Your task to perform on an android device: Open Google Maps and go to "Timeline" Image 0: 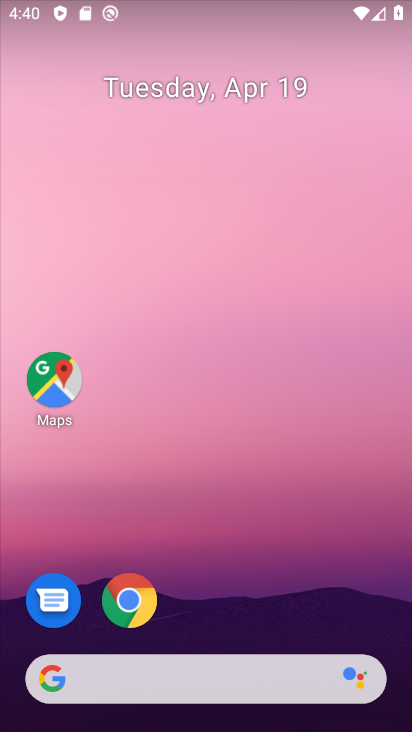
Step 0: click (59, 388)
Your task to perform on an android device: Open Google Maps and go to "Timeline" Image 1: 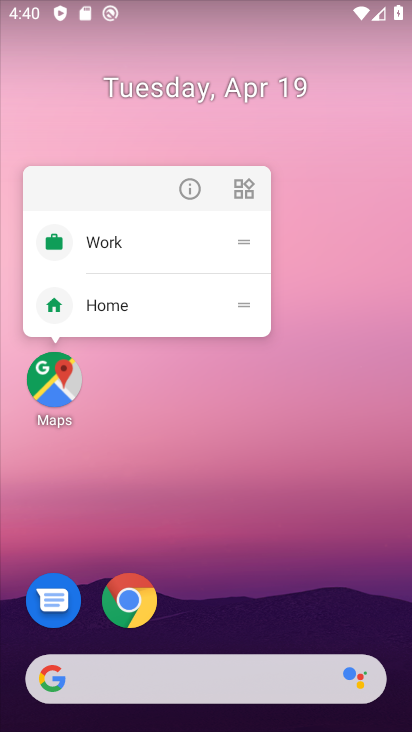
Step 1: click (45, 402)
Your task to perform on an android device: Open Google Maps and go to "Timeline" Image 2: 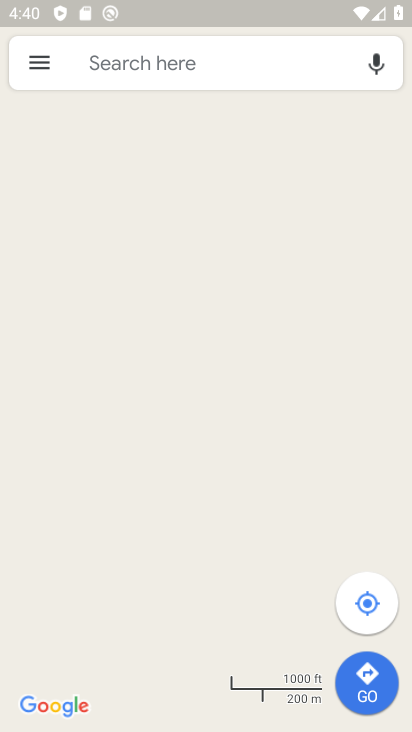
Step 2: click (39, 63)
Your task to perform on an android device: Open Google Maps and go to "Timeline" Image 3: 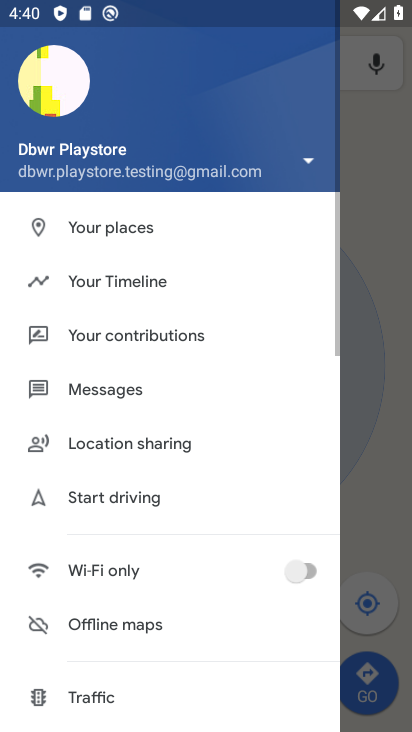
Step 3: click (154, 281)
Your task to perform on an android device: Open Google Maps and go to "Timeline" Image 4: 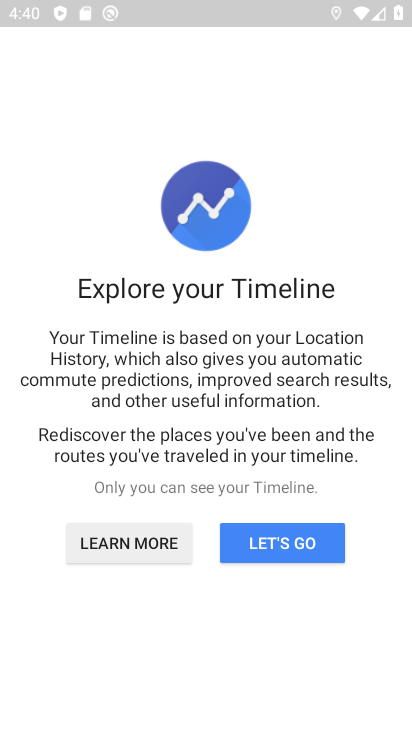
Step 4: click (297, 538)
Your task to perform on an android device: Open Google Maps and go to "Timeline" Image 5: 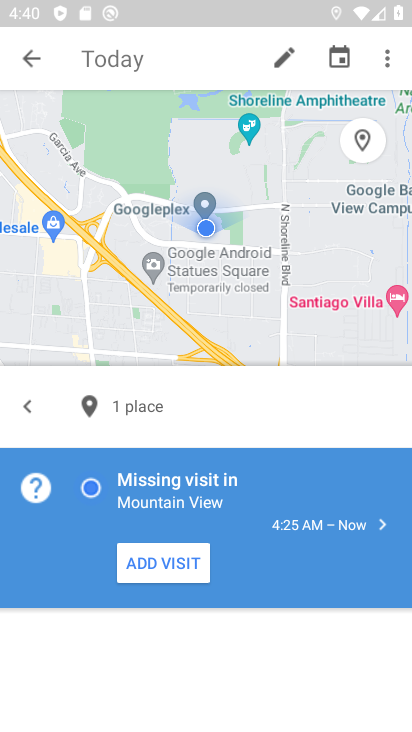
Step 5: task complete